Your task to perform on an android device: What is the news today? Image 0: 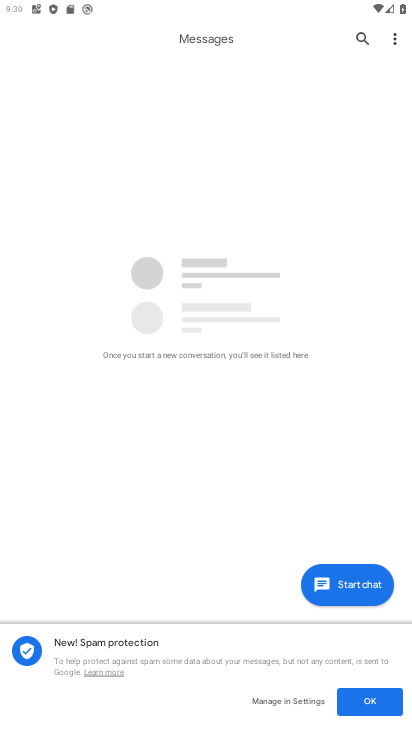
Step 0: press home button
Your task to perform on an android device: What is the news today? Image 1: 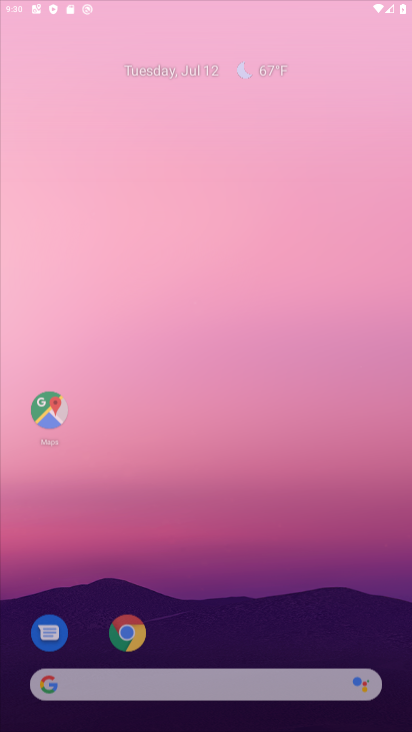
Step 1: drag from (237, 526) to (297, 167)
Your task to perform on an android device: What is the news today? Image 2: 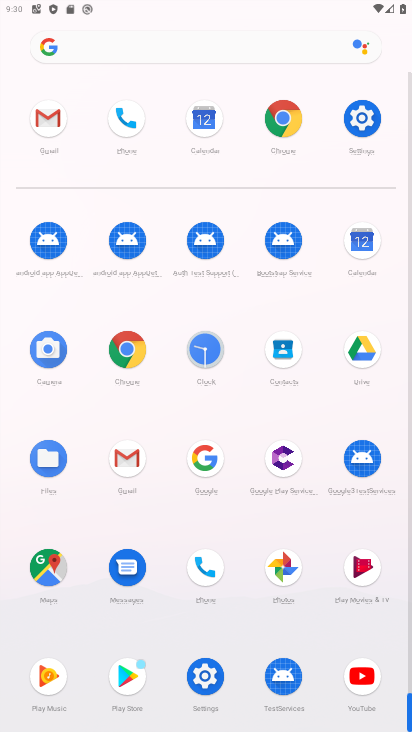
Step 2: click (166, 58)
Your task to perform on an android device: What is the news today? Image 3: 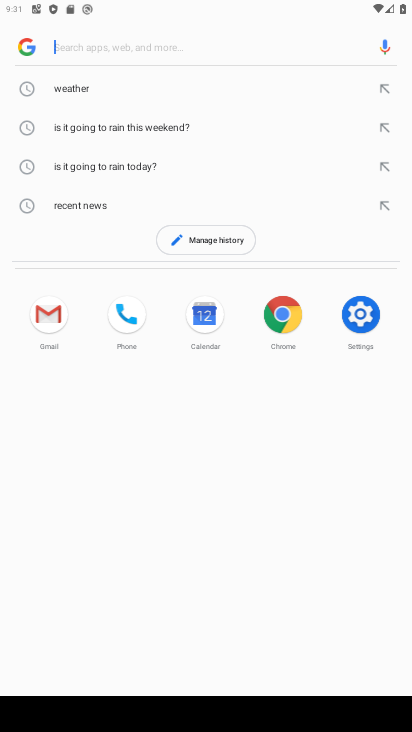
Step 3: type "news today"
Your task to perform on an android device: What is the news today? Image 4: 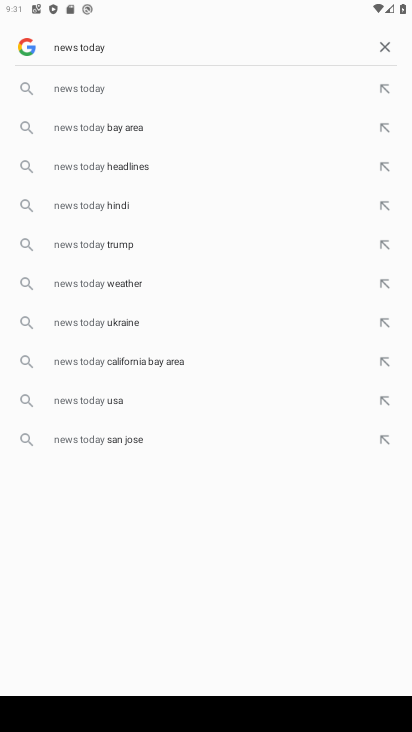
Step 4: click (96, 80)
Your task to perform on an android device: What is the news today? Image 5: 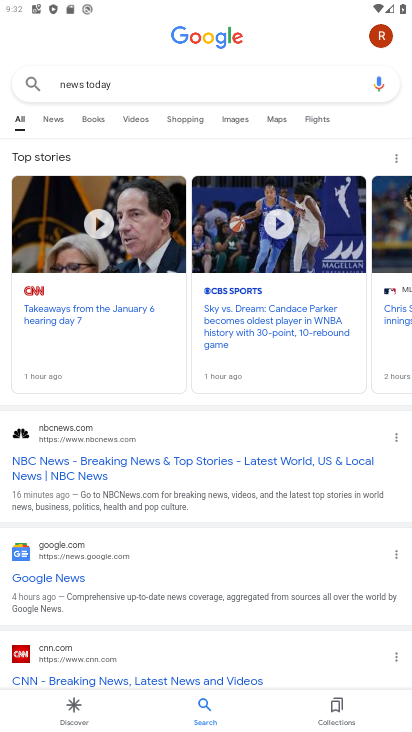
Step 5: task complete